Your task to perform on an android device: set an alarm Image 0: 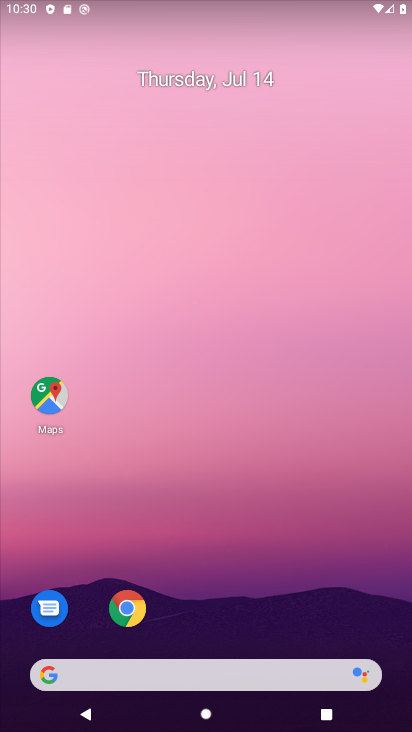
Step 0: drag from (196, 620) to (208, 7)
Your task to perform on an android device: set an alarm Image 1: 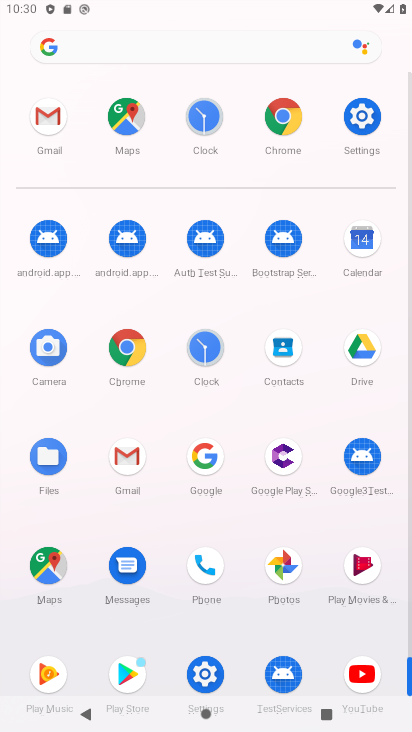
Step 1: click (211, 360)
Your task to perform on an android device: set an alarm Image 2: 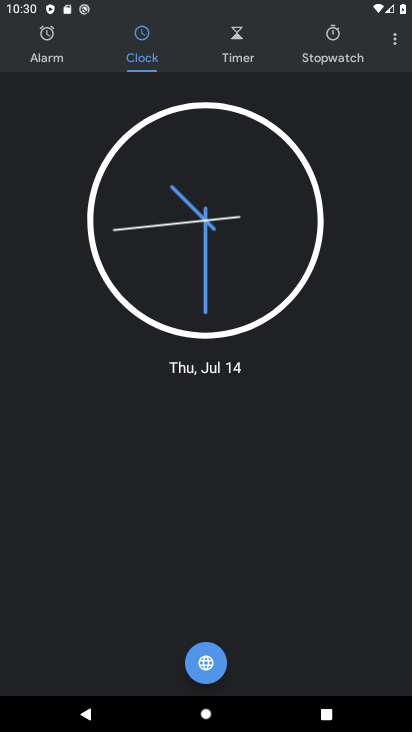
Step 2: click (48, 66)
Your task to perform on an android device: set an alarm Image 3: 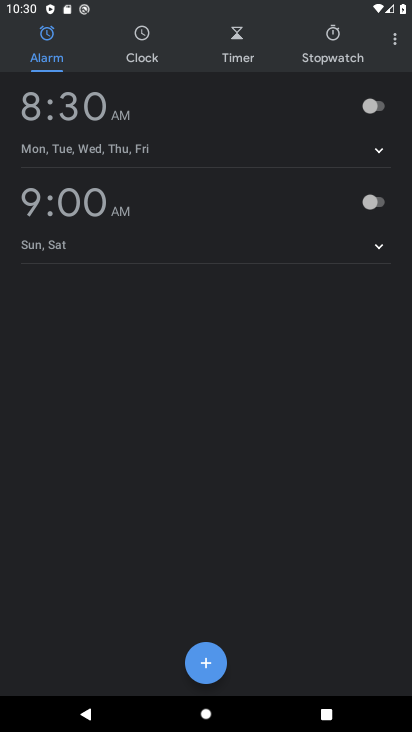
Step 3: click (115, 220)
Your task to perform on an android device: set an alarm Image 4: 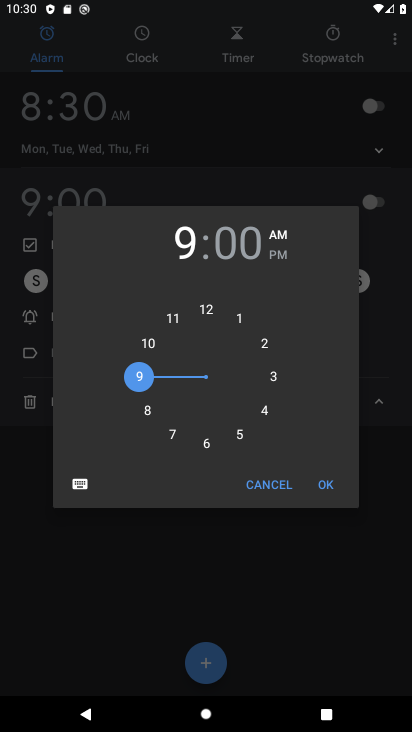
Step 4: click (145, 342)
Your task to perform on an android device: set an alarm Image 5: 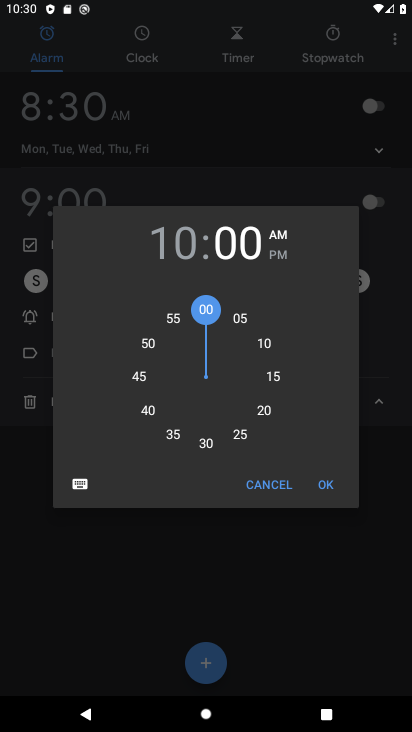
Step 5: click (244, 314)
Your task to perform on an android device: set an alarm Image 6: 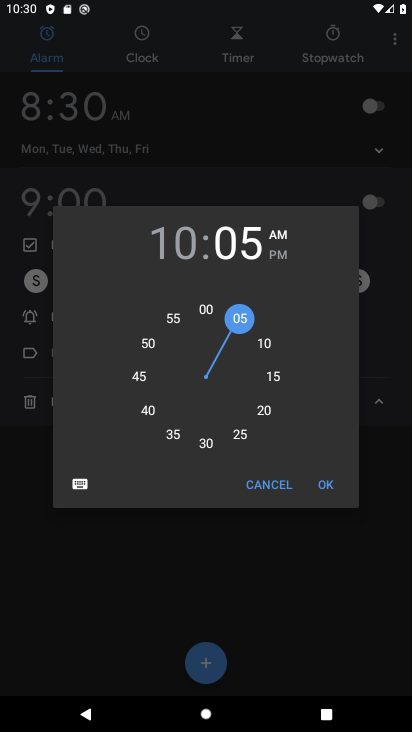
Step 6: click (280, 259)
Your task to perform on an android device: set an alarm Image 7: 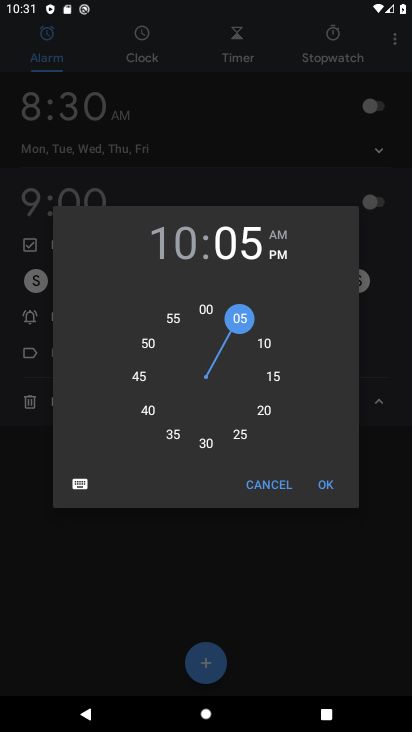
Step 7: click (336, 483)
Your task to perform on an android device: set an alarm Image 8: 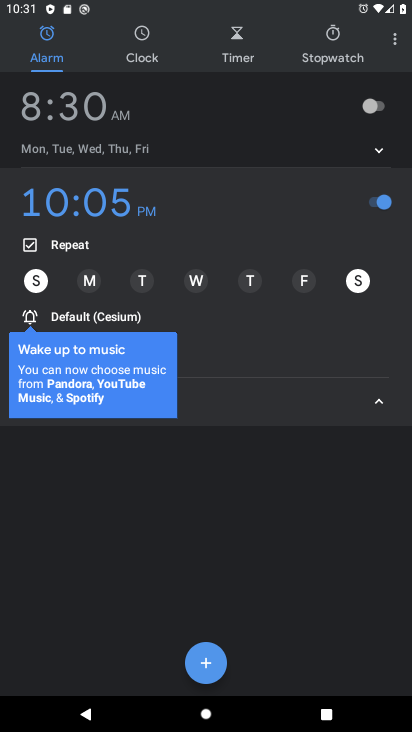
Step 8: click (139, 282)
Your task to perform on an android device: set an alarm Image 9: 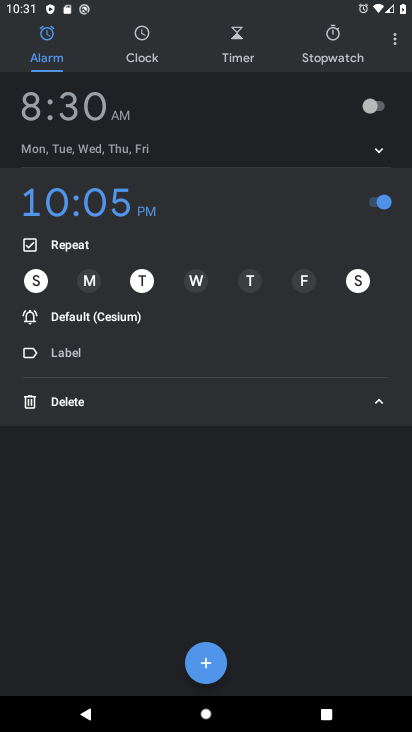
Step 9: task complete